Your task to perform on an android device: Open Yahoo.com Image 0: 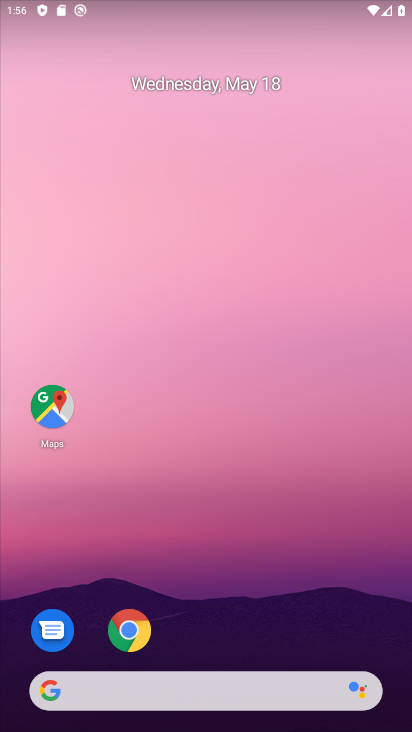
Step 0: click (139, 636)
Your task to perform on an android device: Open Yahoo.com Image 1: 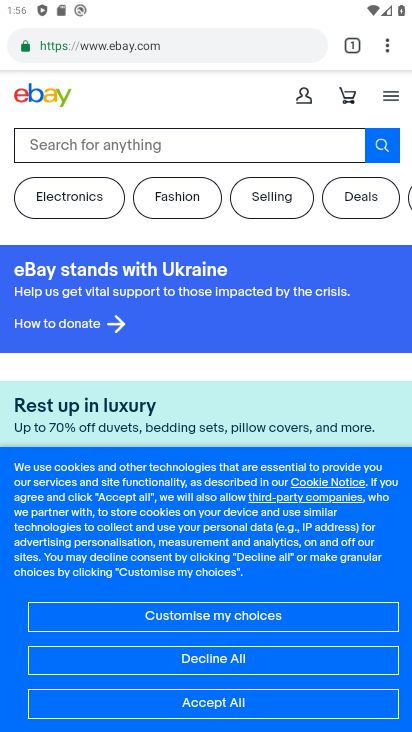
Step 1: click (348, 39)
Your task to perform on an android device: Open Yahoo.com Image 2: 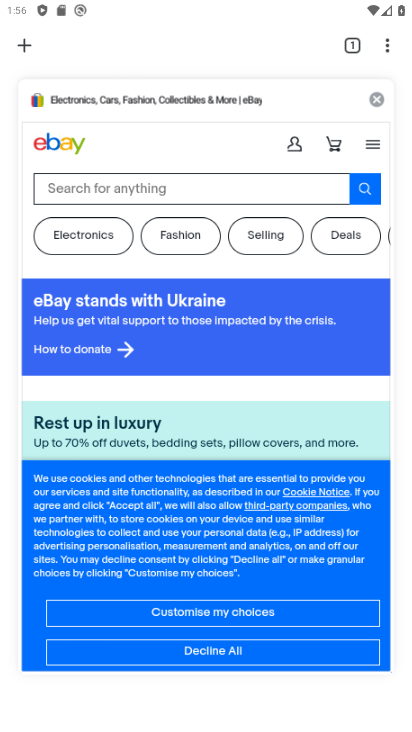
Step 2: click (32, 40)
Your task to perform on an android device: Open Yahoo.com Image 3: 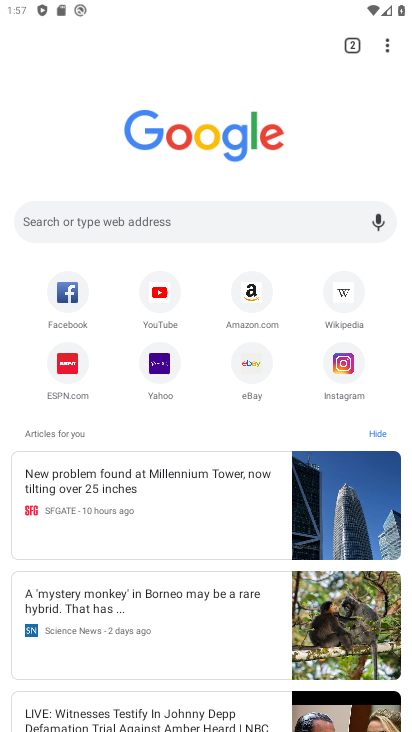
Step 3: click (168, 350)
Your task to perform on an android device: Open Yahoo.com Image 4: 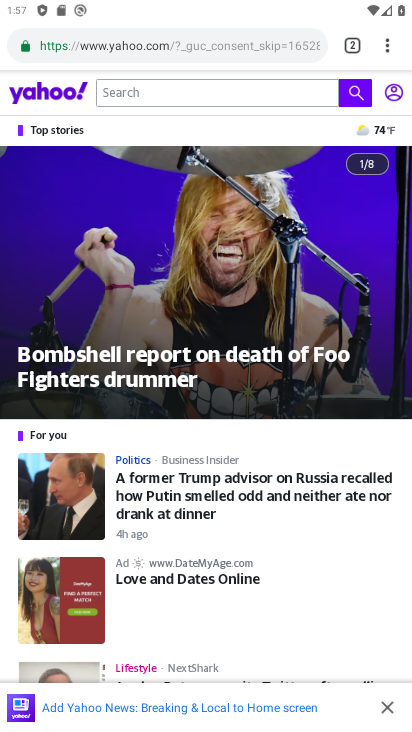
Step 4: task complete